Your task to perform on an android device: find snoozed emails in the gmail app Image 0: 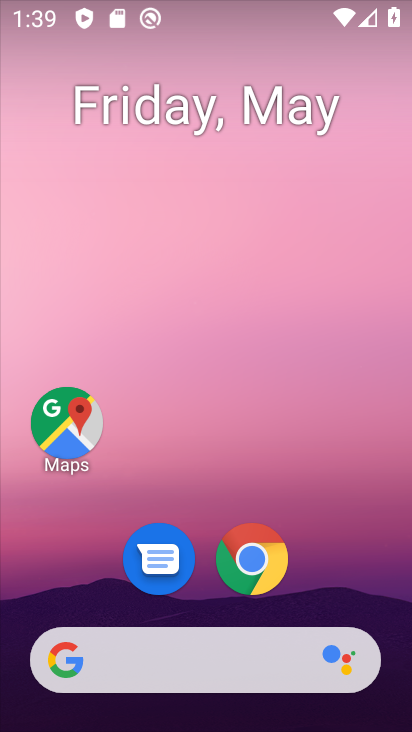
Step 0: drag from (313, 500) to (298, 196)
Your task to perform on an android device: find snoozed emails in the gmail app Image 1: 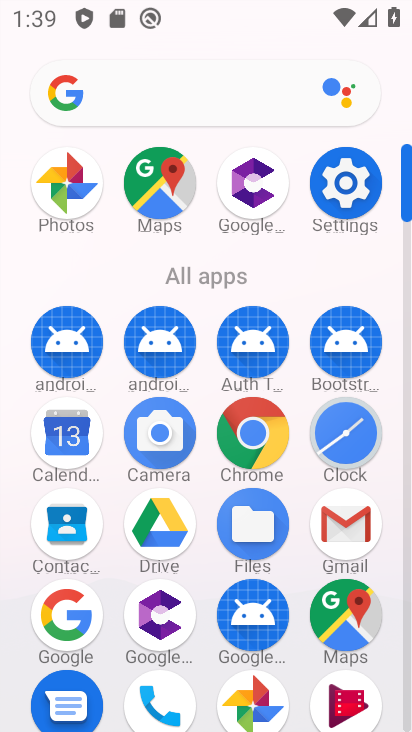
Step 1: click (322, 543)
Your task to perform on an android device: find snoozed emails in the gmail app Image 2: 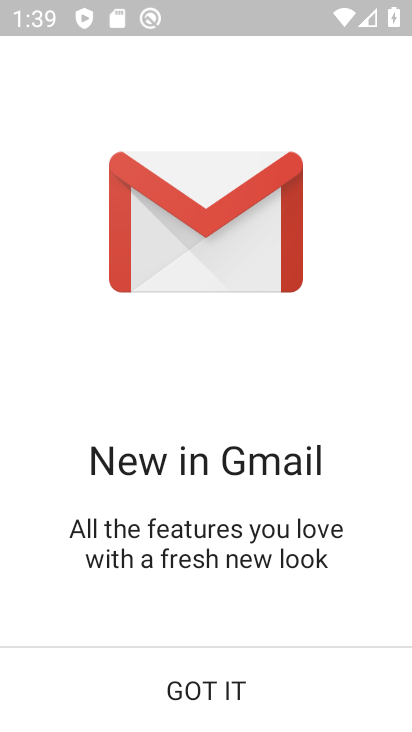
Step 2: click (234, 690)
Your task to perform on an android device: find snoozed emails in the gmail app Image 3: 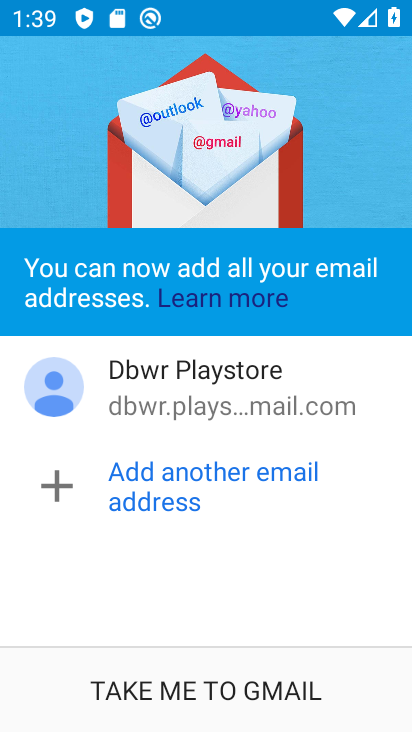
Step 3: click (242, 700)
Your task to perform on an android device: find snoozed emails in the gmail app Image 4: 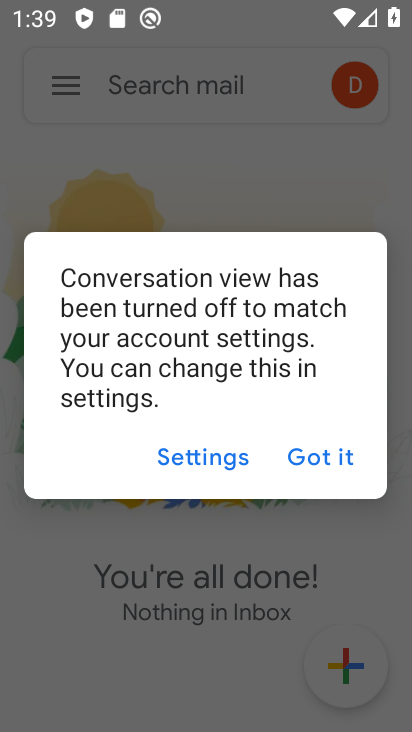
Step 4: click (314, 468)
Your task to perform on an android device: find snoozed emails in the gmail app Image 5: 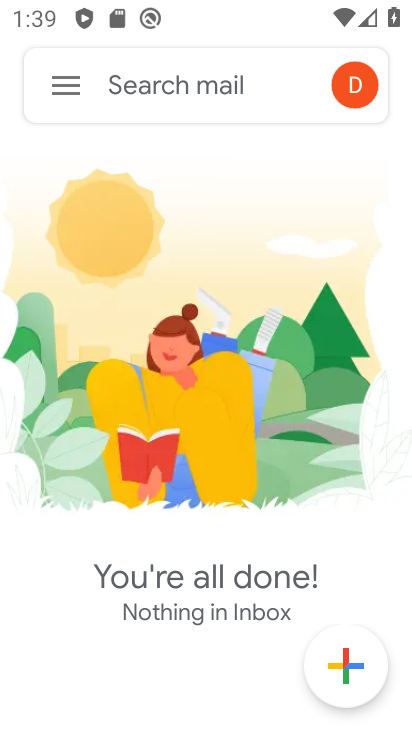
Step 5: click (71, 85)
Your task to perform on an android device: find snoozed emails in the gmail app Image 6: 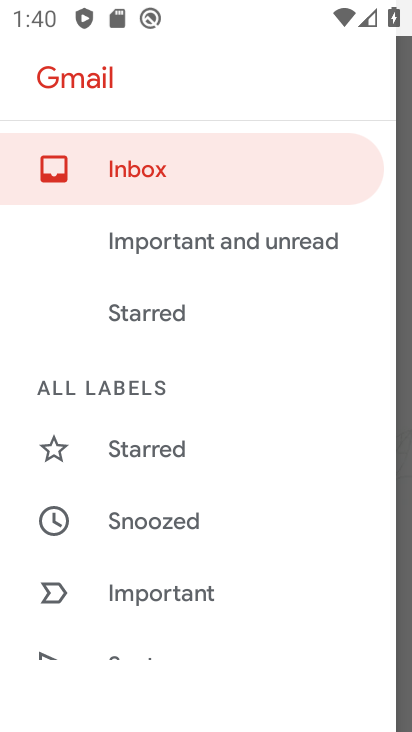
Step 6: click (180, 522)
Your task to perform on an android device: find snoozed emails in the gmail app Image 7: 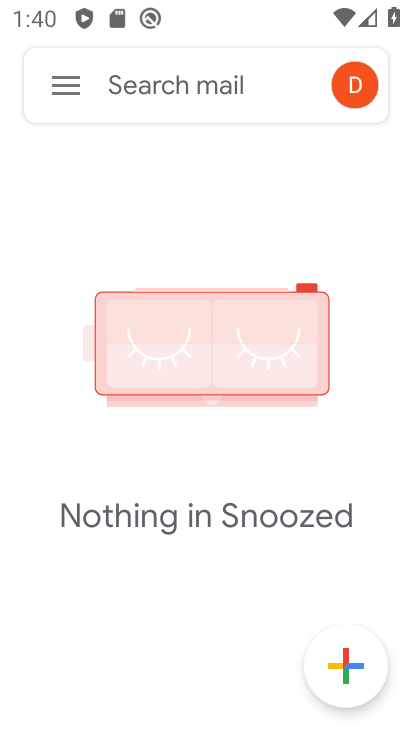
Step 7: task complete